Your task to perform on an android device: Search for seafood restaurants on Google Maps Image 0: 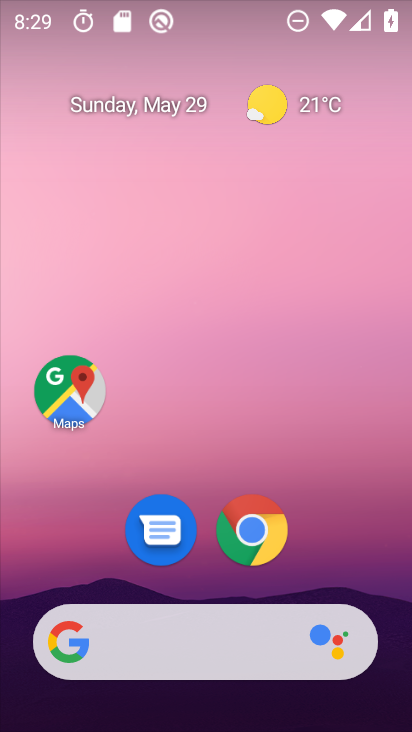
Step 0: drag from (279, 595) to (302, 162)
Your task to perform on an android device: Search for seafood restaurants on Google Maps Image 1: 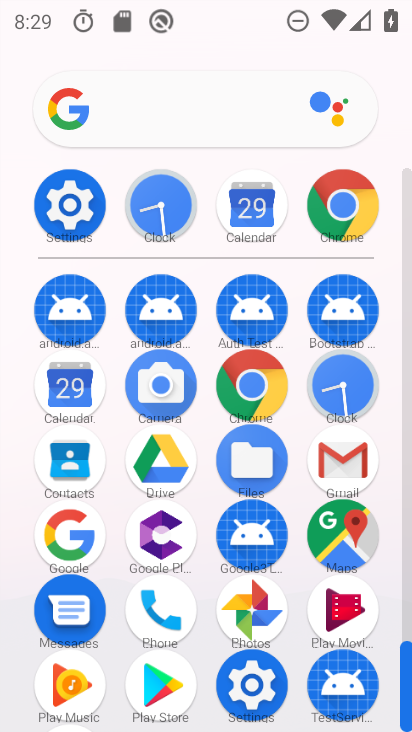
Step 1: click (327, 539)
Your task to perform on an android device: Search for seafood restaurants on Google Maps Image 2: 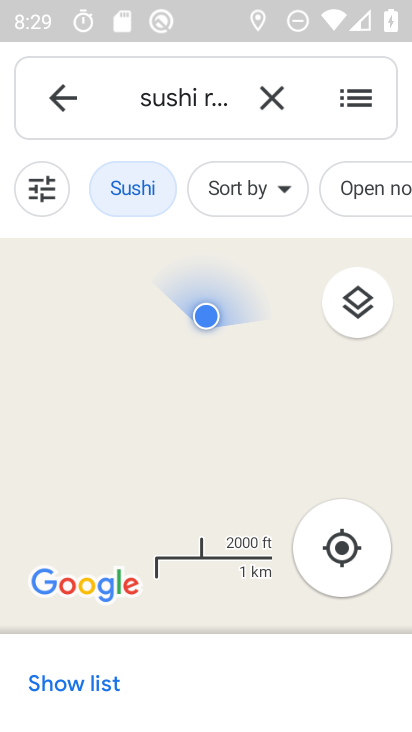
Step 2: click (264, 98)
Your task to perform on an android device: Search for seafood restaurants on Google Maps Image 3: 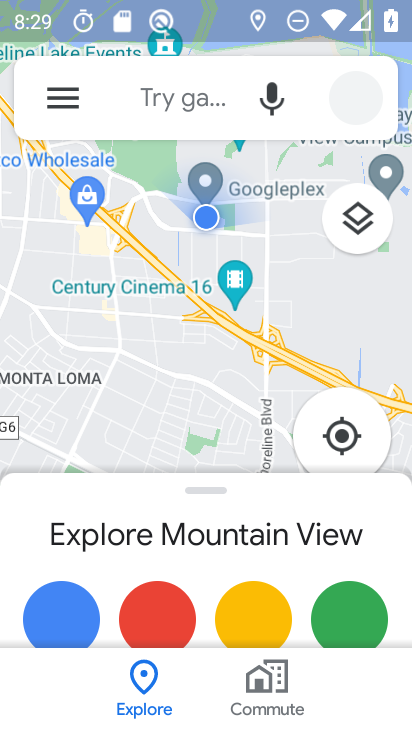
Step 3: click (149, 111)
Your task to perform on an android device: Search for seafood restaurants on Google Maps Image 4: 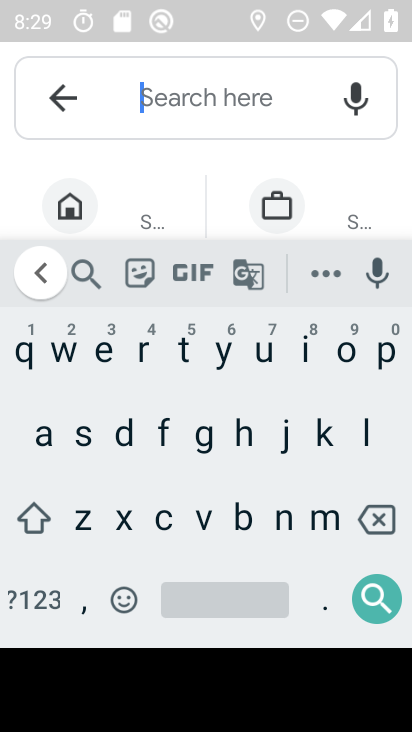
Step 4: click (79, 433)
Your task to perform on an android device: Search for seafood restaurants on Google Maps Image 5: 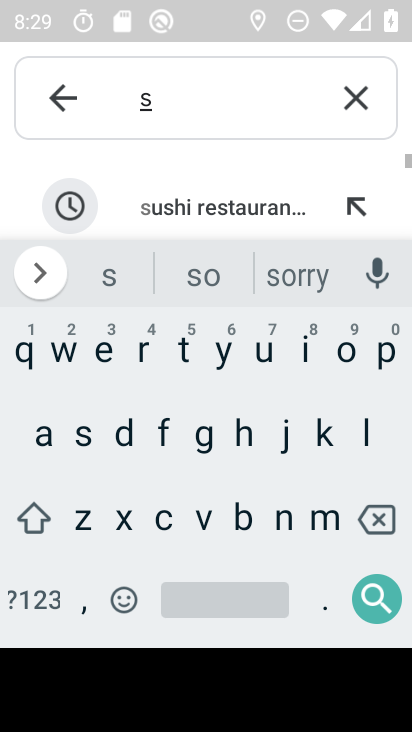
Step 5: click (99, 346)
Your task to perform on an android device: Search for seafood restaurants on Google Maps Image 6: 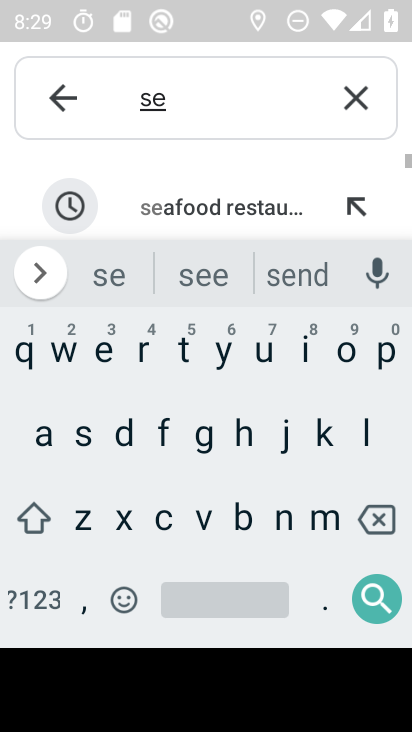
Step 6: click (39, 437)
Your task to perform on an android device: Search for seafood restaurants on Google Maps Image 7: 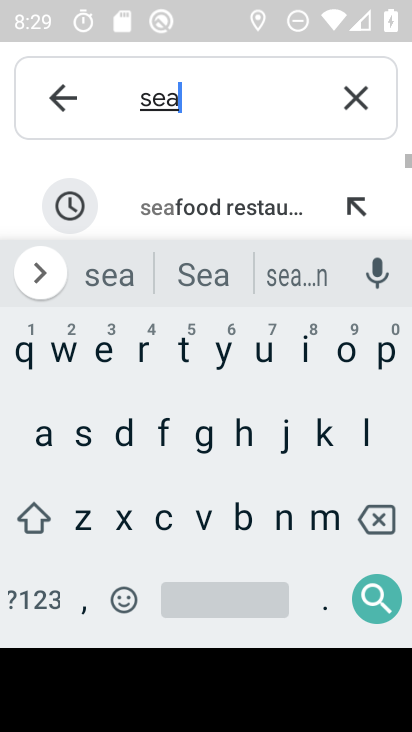
Step 7: click (230, 207)
Your task to perform on an android device: Search for seafood restaurants on Google Maps Image 8: 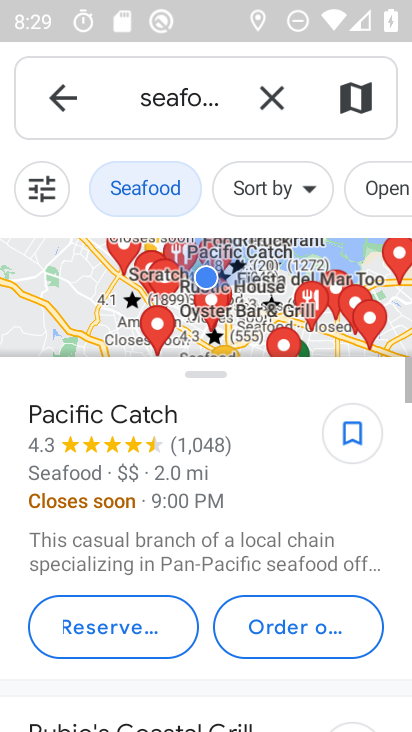
Step 8: task complete